Your task to perform on an android device: Open network settings Image 0: 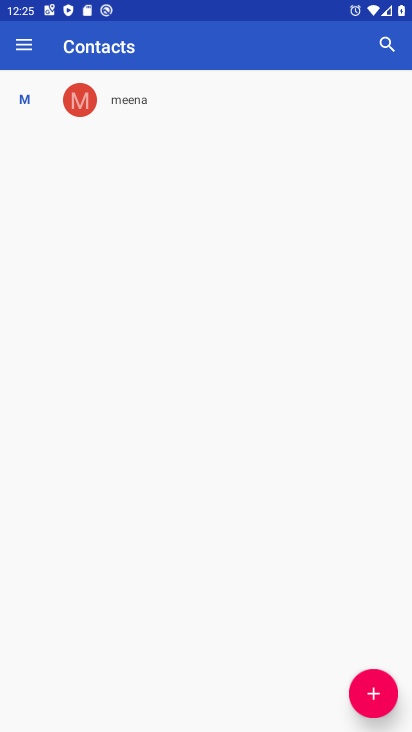
Step 0: press home button
Your task to perform on an android device: Open network settings Image 1: 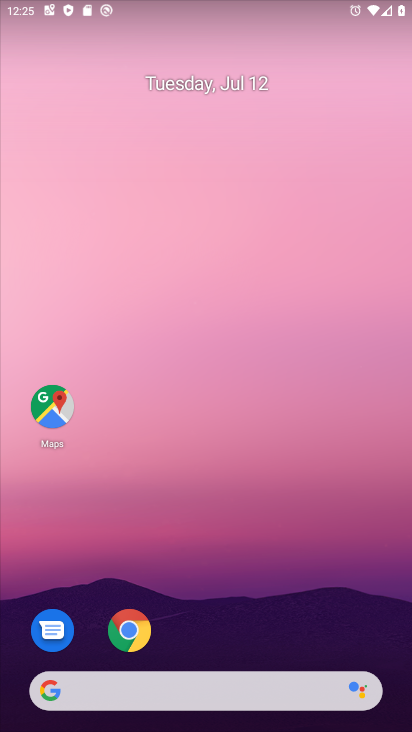
Step 1: drag from (166, 691) to (212, 132)
Your task to perform on an android device: Open network settings Image 2: 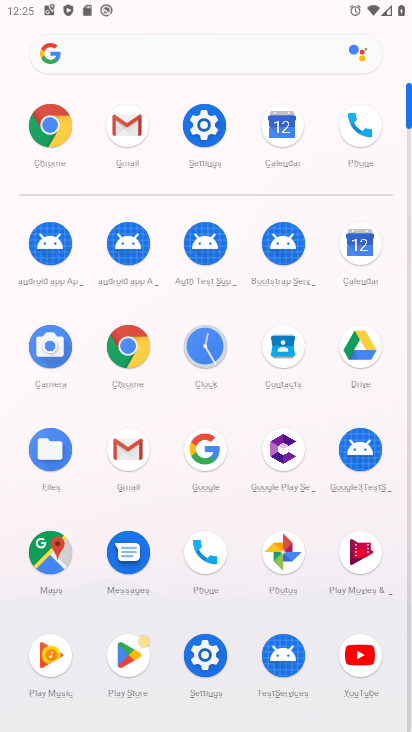
Step 2: click (202, 125)
Your task to perform on an android device: Open network settings Image 3: 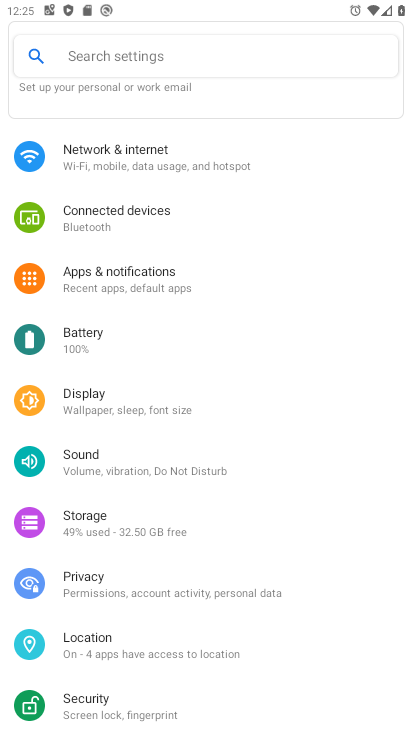
Step 3: click (152, 166)
Your task to perform on an android device: Open network settings Image 4: 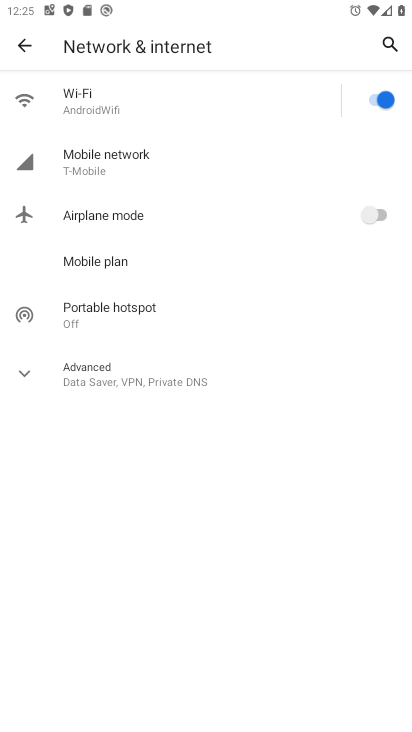
Step 4: task complete